Your task to perform on an android device: find photos in the google photos app Image 0: 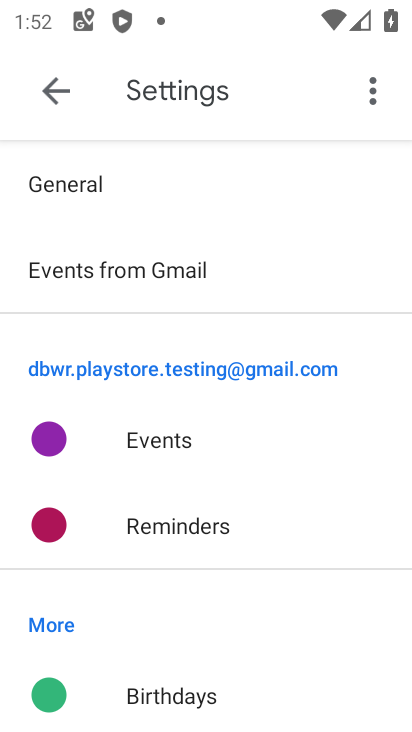
Step 0: press home button
Your task to perform on an android device: find photos in the google photos app Image 1: 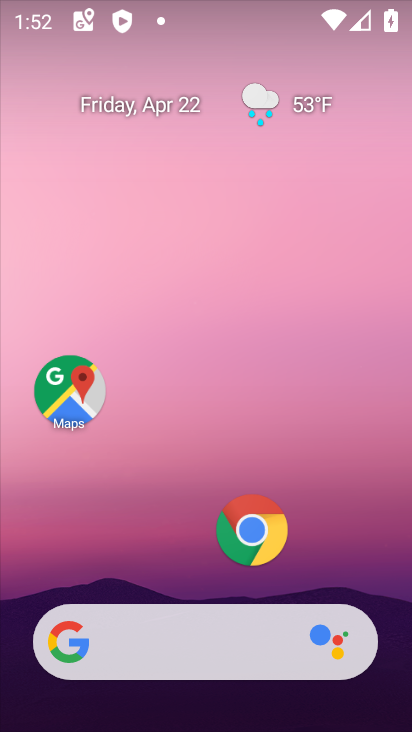
Step 1: drag from (167, 639) to (190, 166)
Your task to perform on an android device: find photos in the google photos app Image 2: 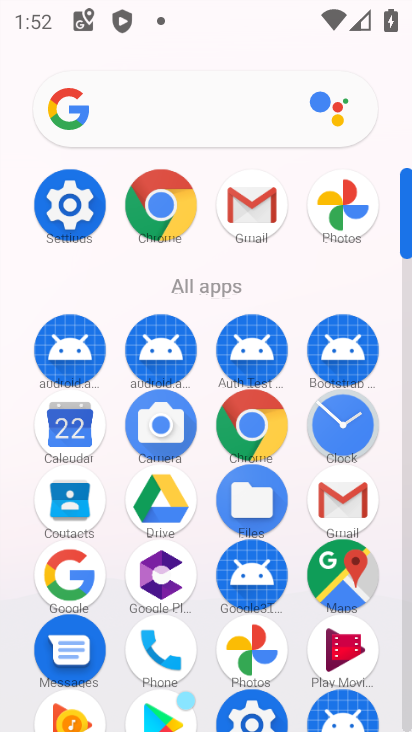
Step 2: click (249, 629)
Your task to perform on an android device: find photos in the google photos app Image 3: 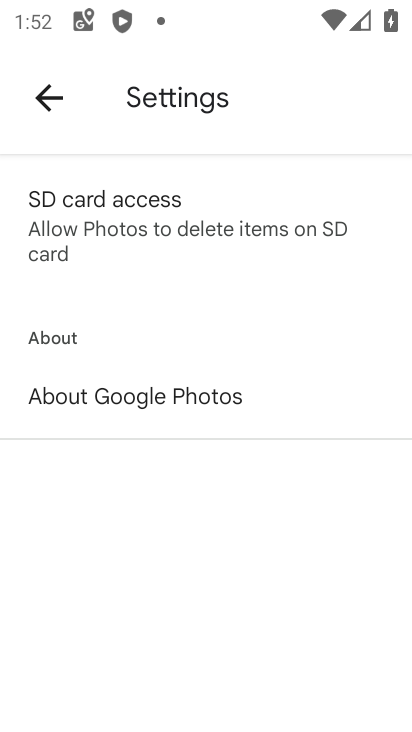
Step 3: click (56, 92)
Your task to perform on an android device: find photos in the google photos app Image 4: 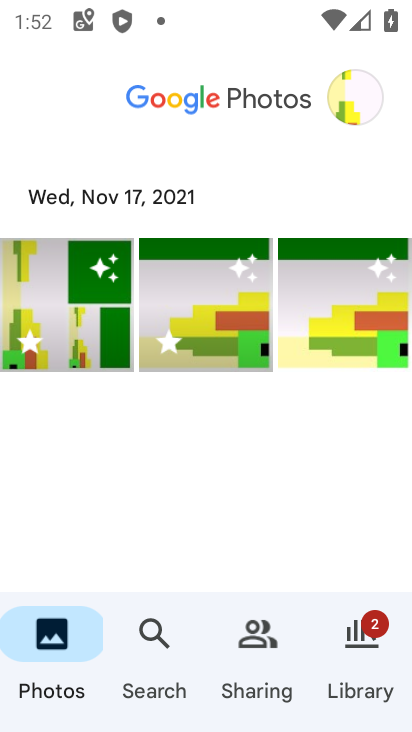
Step 4: task complete